Your task to perform on an android device: toggle show notifications on the lock screen Image 0: 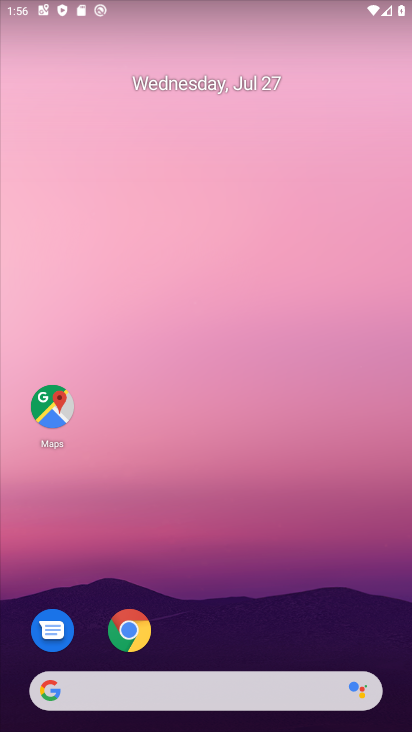
Step 0: drag from (381, 643) to (352, 25)
Your task to perform on an android device: toggle show notifications on the lock screen Image 1: 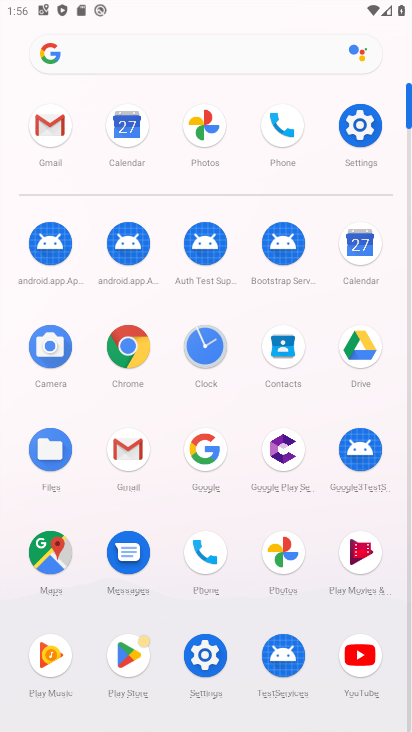
Step 1: click (206, 654)
Your task to perform on an android device: toggle show notifications on the lock screen Image 2: 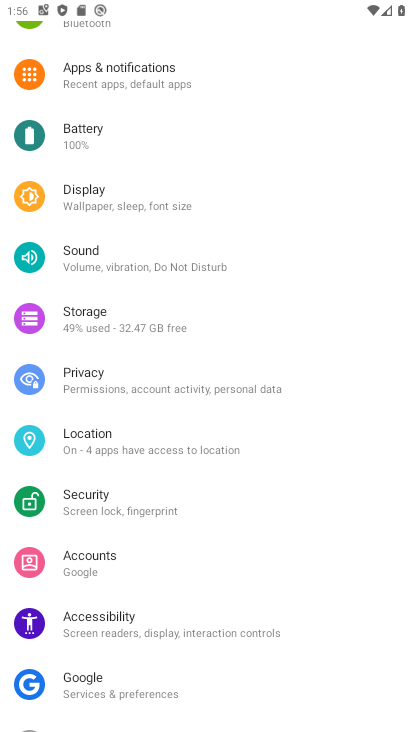
Step 2: drag from (250, 166) to (259, 391)
Your task to perform on an android device: toggle show notifications on the lock screen Image 3: 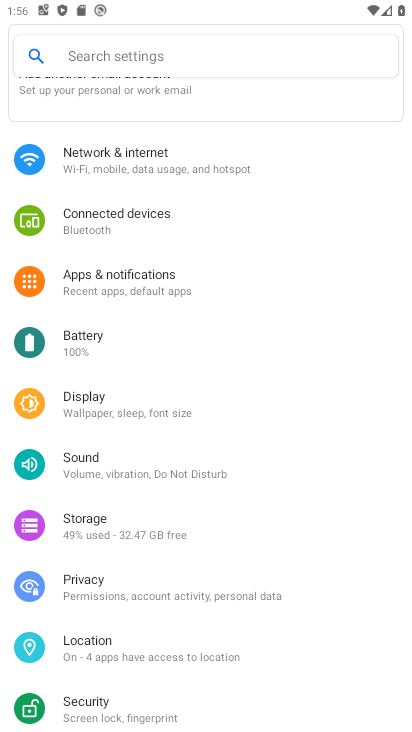
Step 3: click (107, 272)
Your task to perform on an android device: toggle show notifications on the lock screen Image 4: 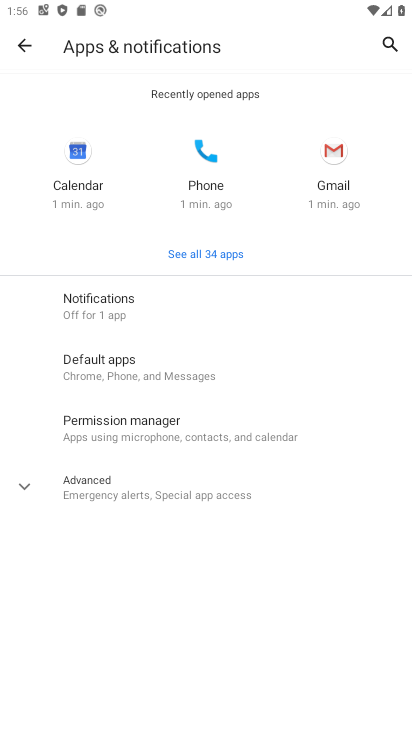
Step 4: click (97, 307)
Your task to perform on an android device: toggle show notifications on the lock screen Image 5: 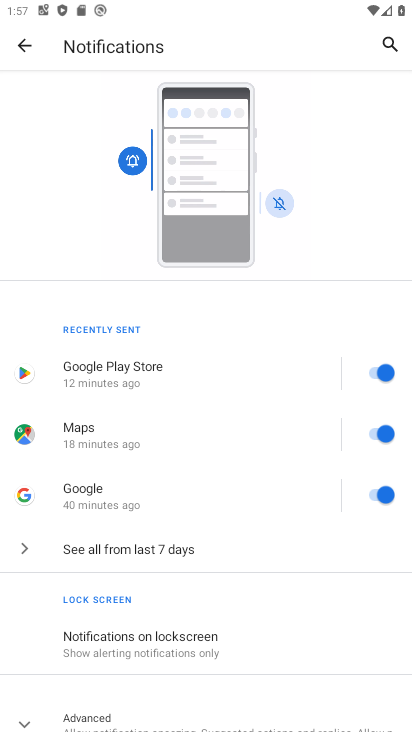
Step 5: drag from (255, 647) to (302, 258)
Your task to perform on an android device: toggle show notifications on the lock screen Image 6: 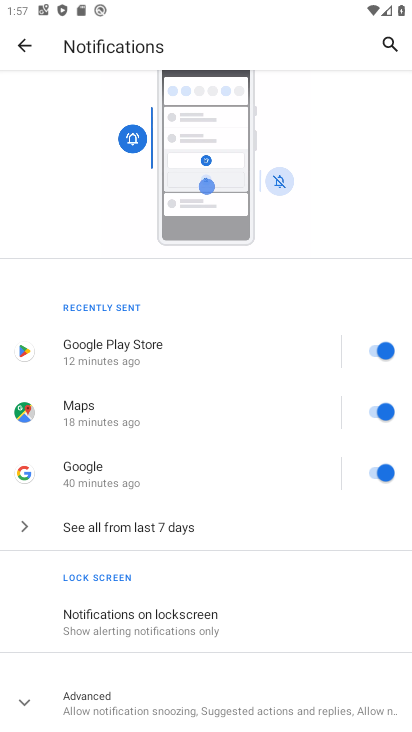
Step 6: click (121, 613)
Your task to perform on an android device: toggle show notifications on the lock screen Image 7: 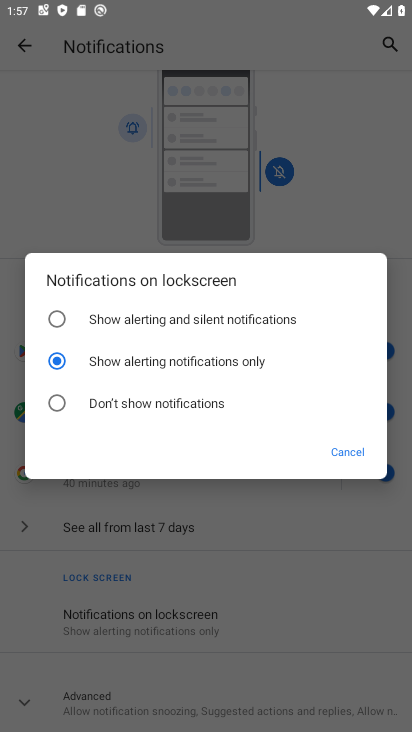
Step 7: click (59, 319)
Your task to perform on an android device: toggle show notifications on the lock screen Image 8: 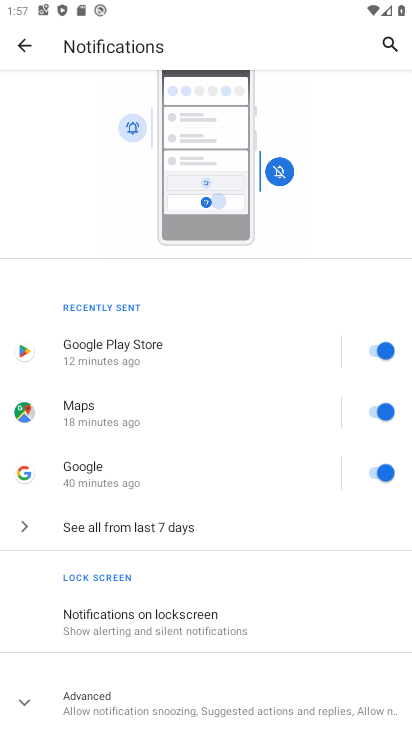
Step 8: task complete